Your task to perform on an android device: toggle location history Image 0: 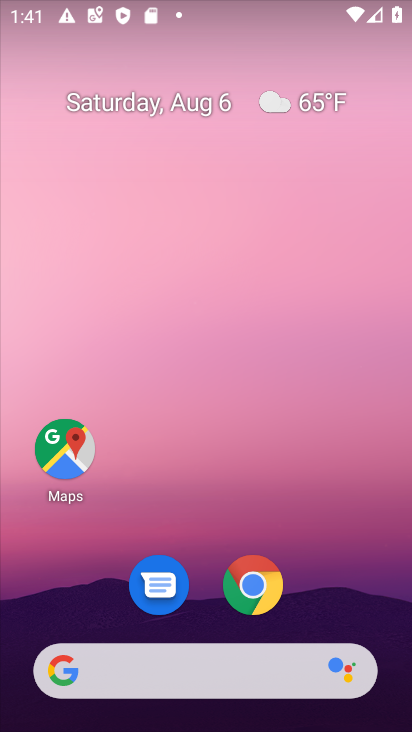
Step 0: drag from (214, 512) to (259, 8)
Your task to perform on an android device: toggle location history Image 1: 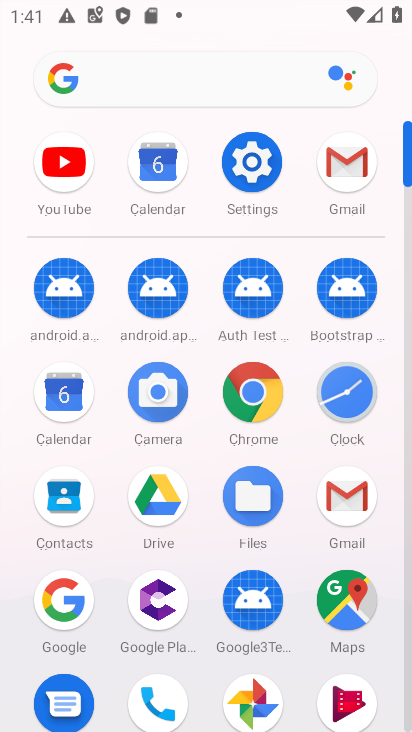
Step 1: click (254, 164)
Your task to perform on an android device: toggle location history Image 2: 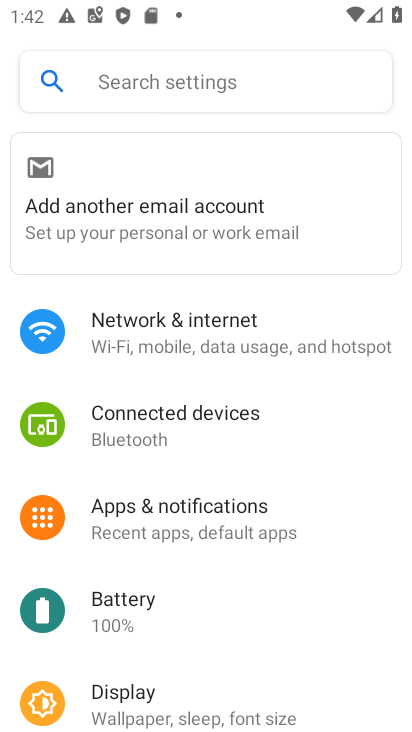
Step 2: drag from (218, 551) to (271, 38)
Your task to perform on an android device: toggle location history Image 3: 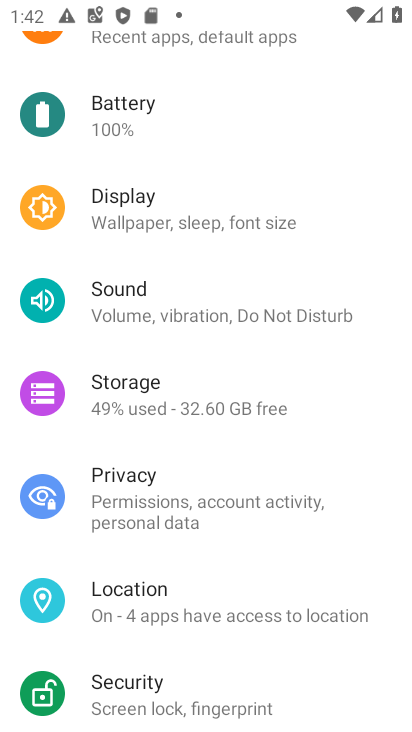
Step 3: click (175, 602)
Your task to perform on an android device: toggle location history Image 4: 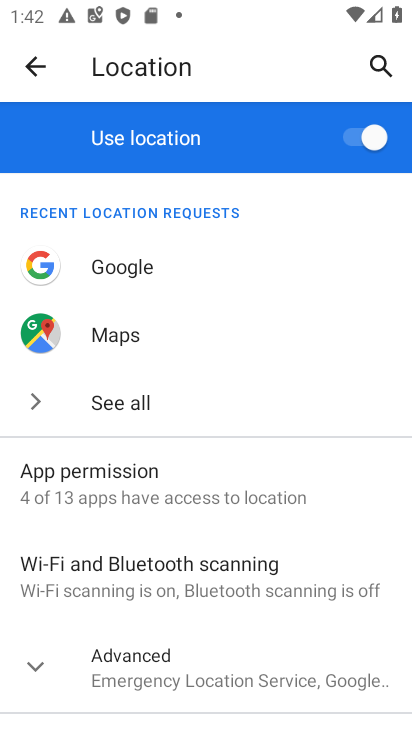
Step 4: drag from (236, 536) to (244, 210)
Your task to perform on an android device: toggle location history Image 5: 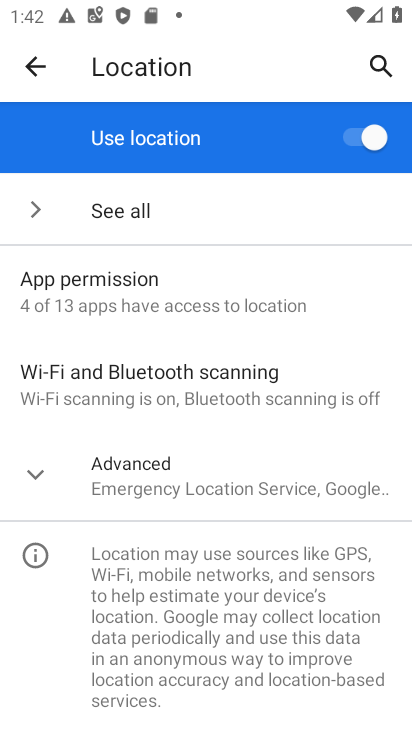
Step 5: click (36, 471)
Your task to perform on an android device: toggle location history Image 6: 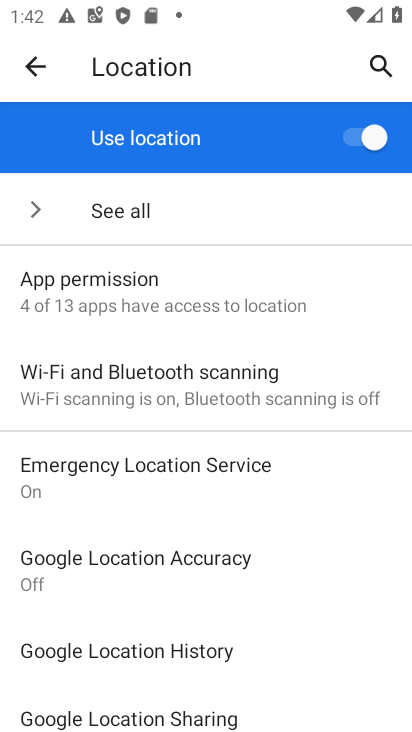
Step 6: click (231, 657)
Your task to perform on an android device: toggle location history Image 7: 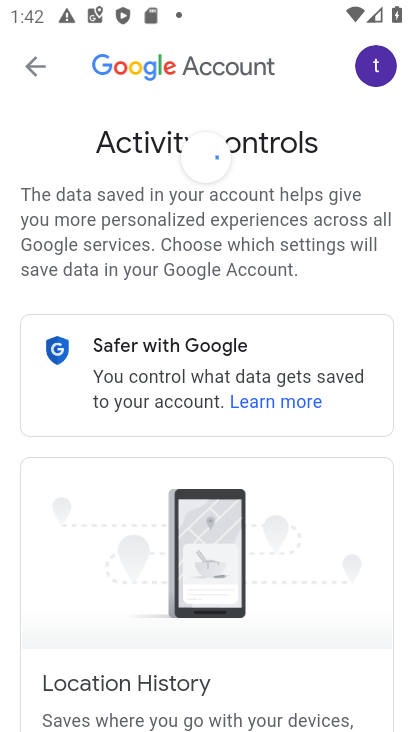
Step 7: drag from (291, 506) to (300, 37)
Your task to perform on an android device: toggle location history Image 8: 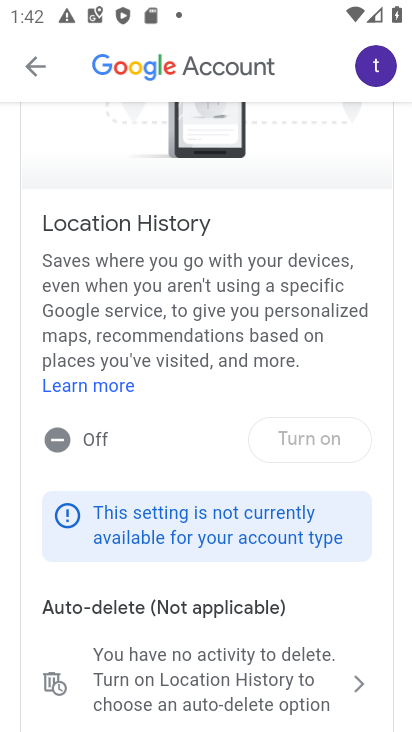
Step 8: click (317, 436)
Your task to perform on an android device: toggle location history Image 9: 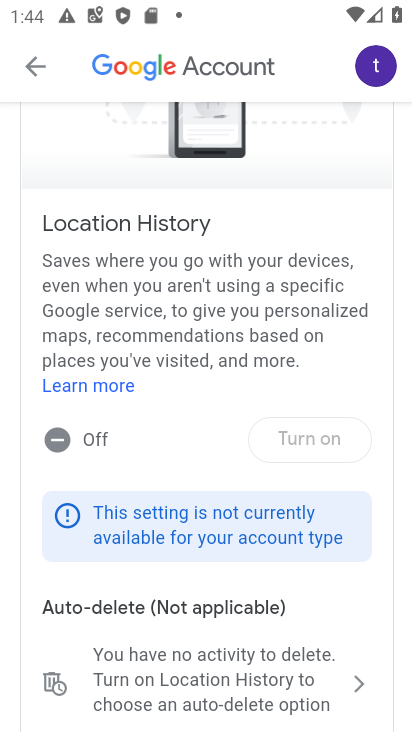
Step 9: task complete